Your task to perform on an android device: What's on my calendar today? Image 0: 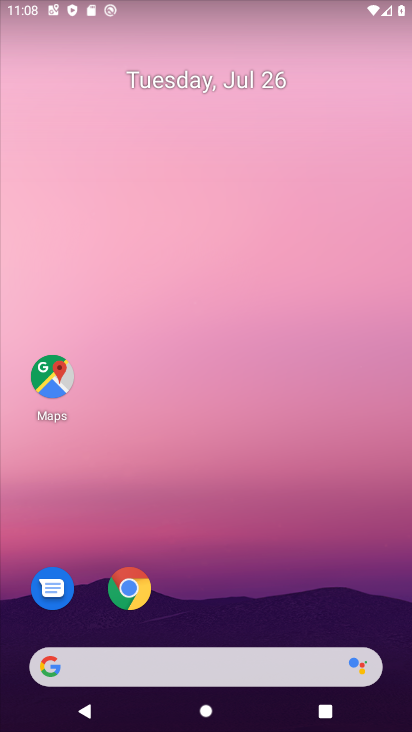
Step 0: drag from (192, 587) to (216, 70)
Your task to perform on an android device: What's on my calendar today? Image 1: 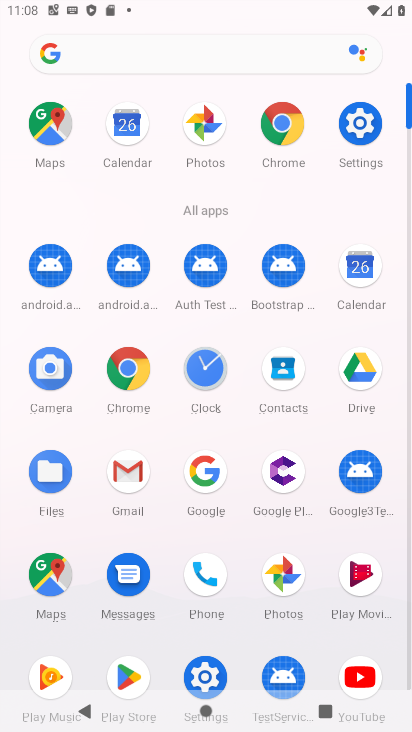
Step 1: click (352, 299)
Your task to perform on an android device: What's on my calendar today? Image 2: 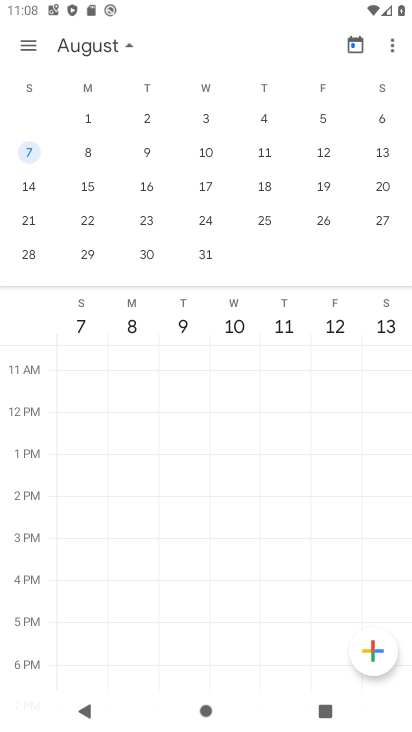
Step 2: click (102, 55)
Your task to perform on an android device: What's on my calendar today? Image 3: 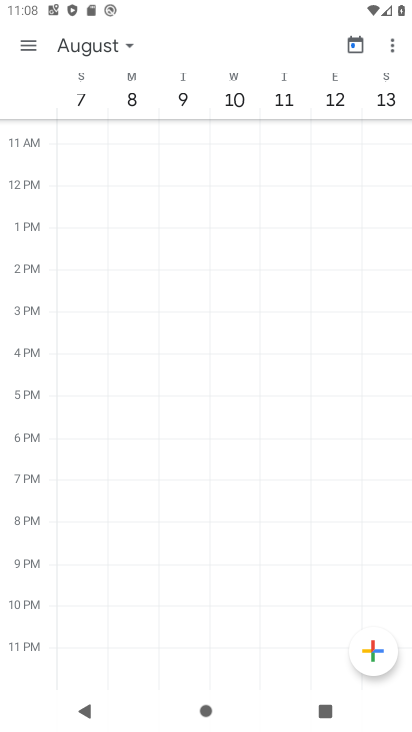
Step 3: click (80, 48)
Your task to perform on an android device: What's on my calendar today? Image 4: 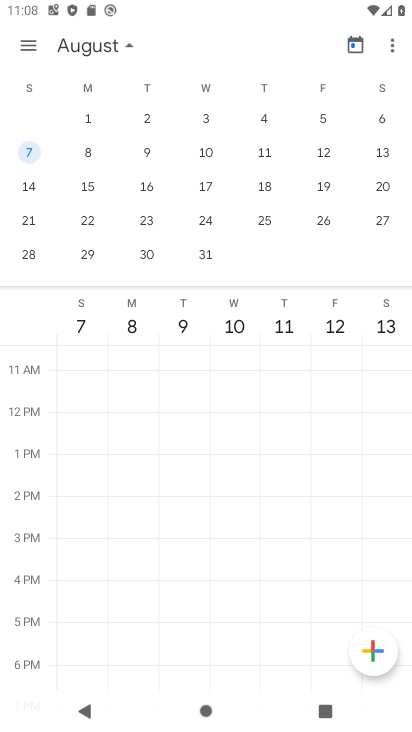
Step 4: drag from (55, 198) to (346, 176)
Your task to perform on an android device: What's on my calendar today? Image 5: 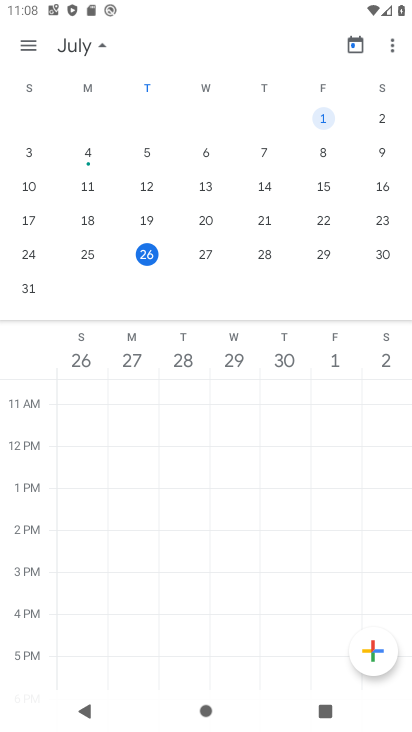
Step 5: click (140, 262)
Your task to perform on an android device: What's on my calendar today? Image 6: 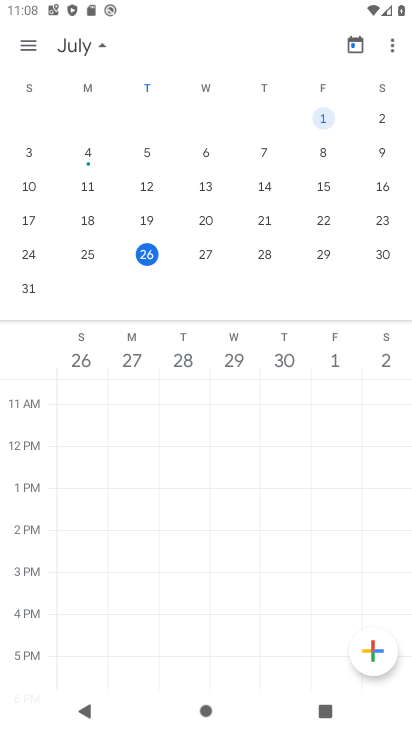
Step 6: click (140, 262)
Your task to perform on an android device: What's on my calendar today? Image 7: 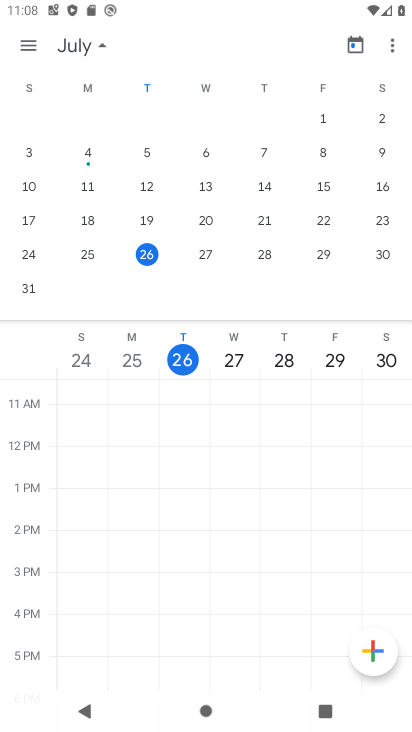
Step 7: task complete